Your task to perform on an android device: check battery use Image 0: 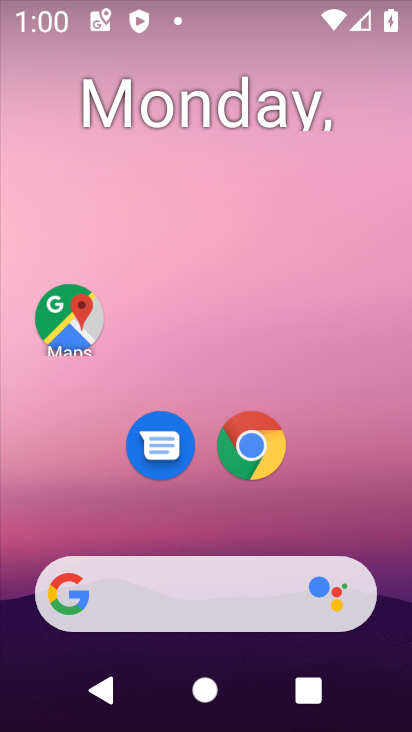
Step 0: drag from (337, 495) to (339, 19)
Your task to perform on an android device: check battery use Image 1: 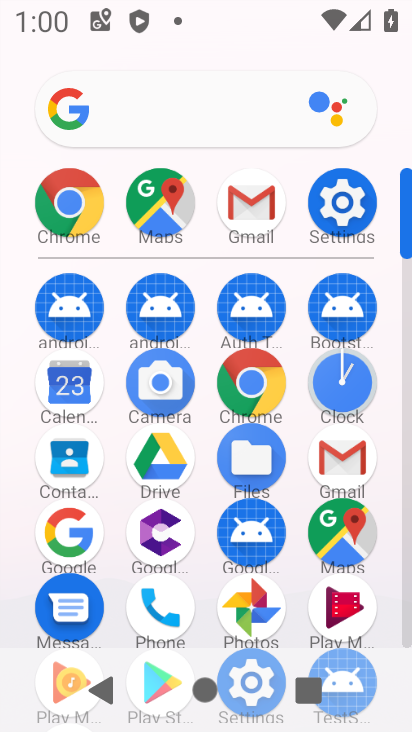
Step 1: click (342, 199)
Your task to perform on an android device: check battery use Image 2: 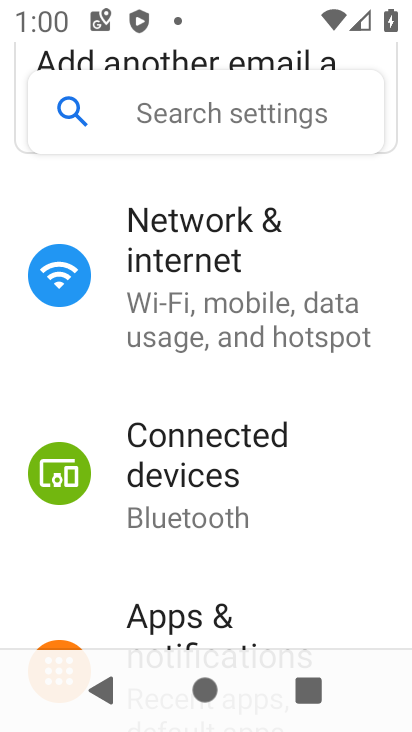
Step 2: drag from (192, 363) to (243, 258)
Your task to perform on an android device: check battery use Image 3: 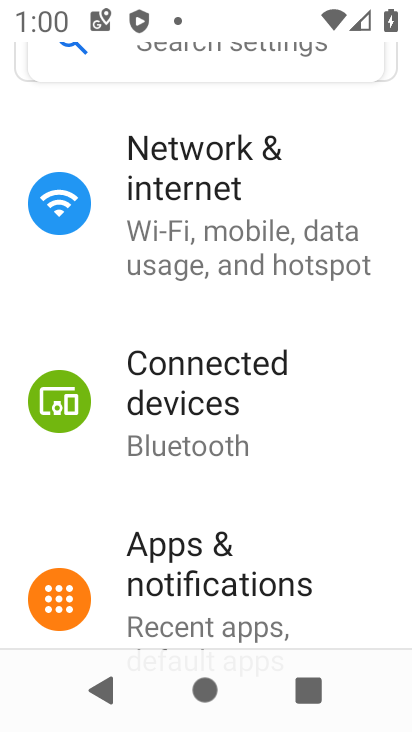
Step 3: drag from (194, 475) to (254, 362)
Your task to perform on an android device: check battery use Image 4: 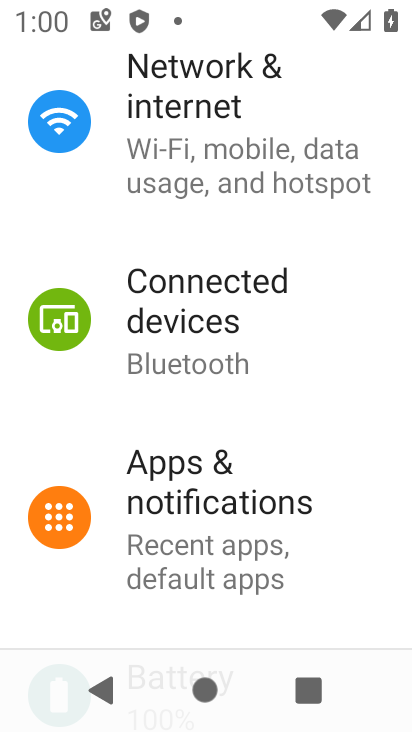
Step 4: drag from (141, 611) to (252, 439)
Your task to perform on an android device: check battery use Image 5: 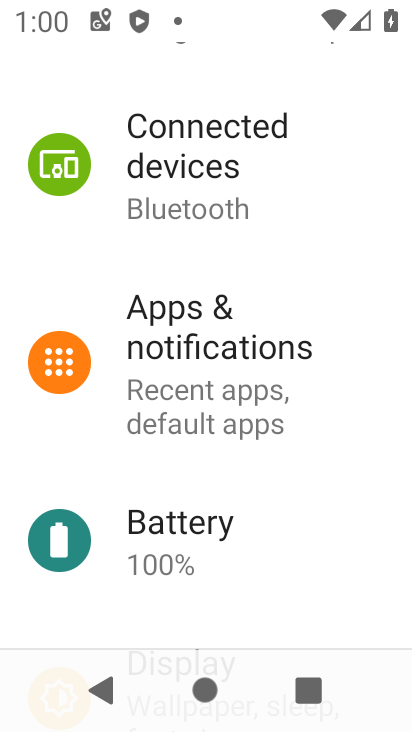
Step 5: drag from (219, 492) to (250, 420)
Your task to perform on an android device: check battery use Image 6: 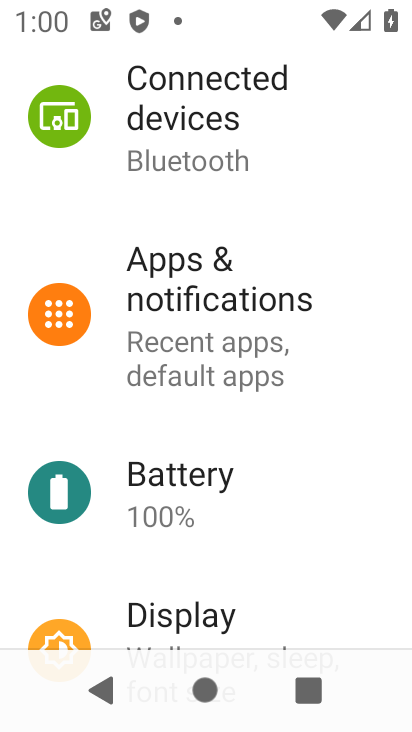
Step 6: click (214, 479)
Your task to perform on an android device: check battery use Image 7: 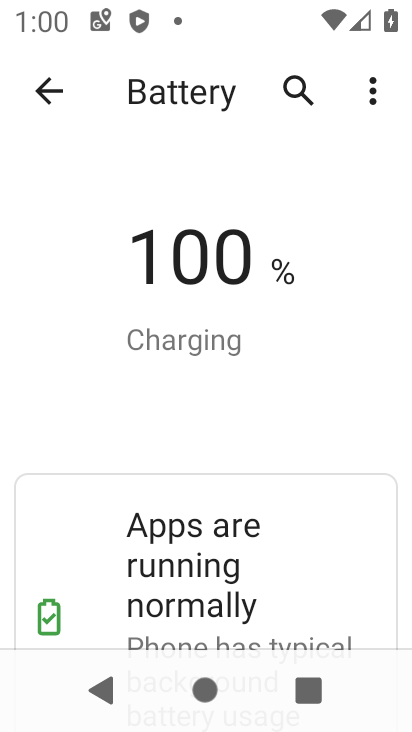
Step 7: click (371, 80)
Your task to perform on an android device: check battery use Image 8: 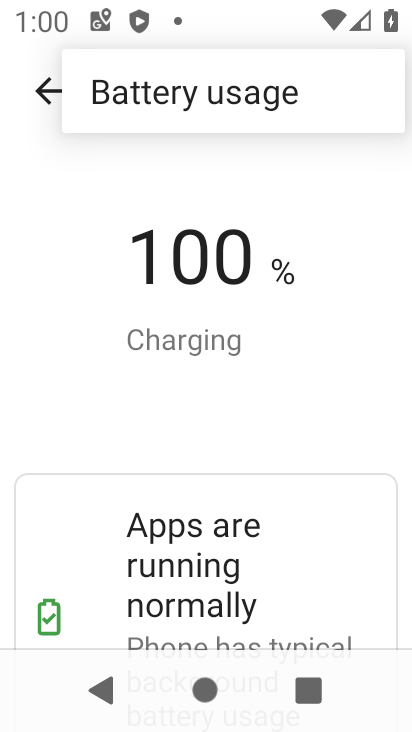
Step 8: click (268, 97)
Your task to perform on an android device: check battery use Image 9: 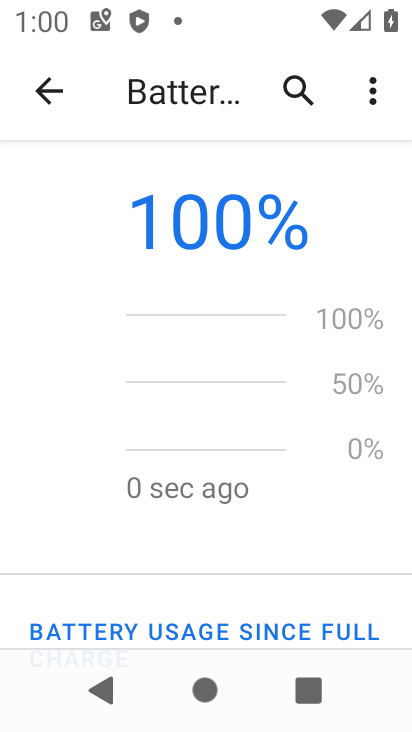
Step 9: task complete